Your task to perform on an android device: change the clock display to digital Image 0: 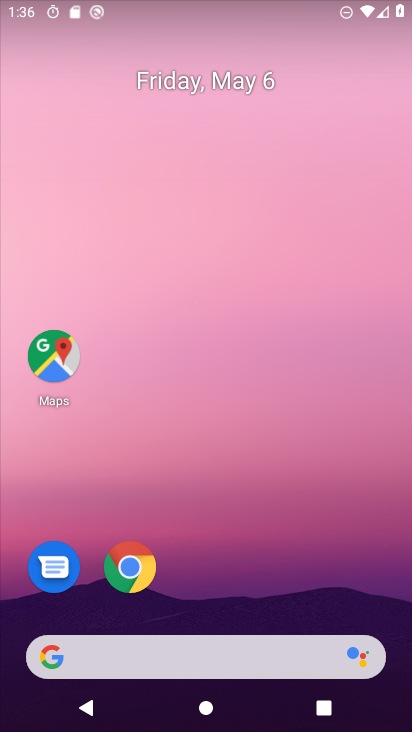
Step 0: drag from (347, 609) to (342, 2)
Your task to perform on an android device: change the clock display to digital Image 1: 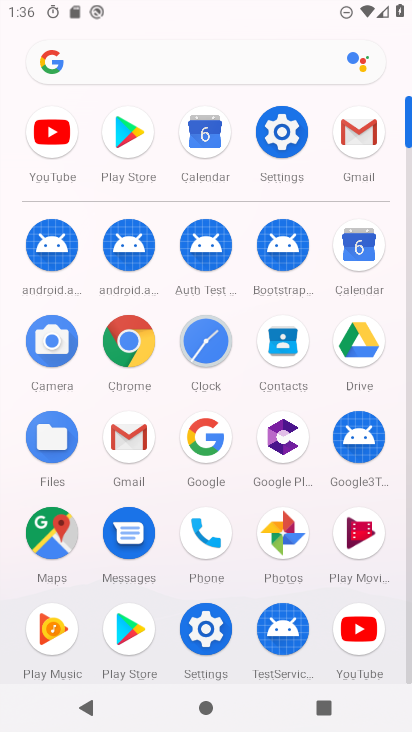
Step 1: click (203, 344)
Your task to perform on an android device: change the clock display to digital Image 2: 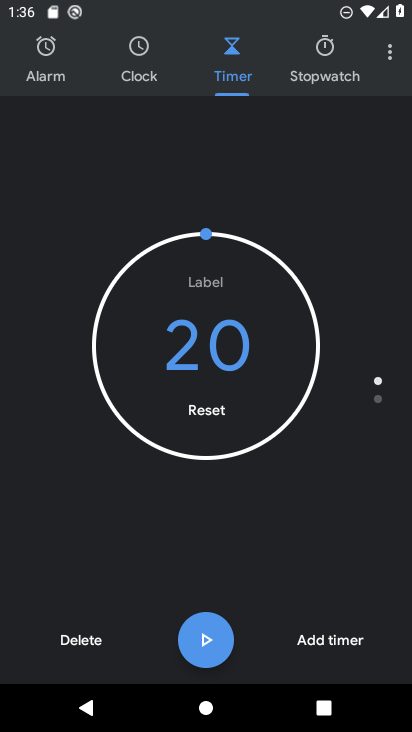
Step 2: click (387, 55)
Your task to perform on an android device: change the clock display to digital Image 3: 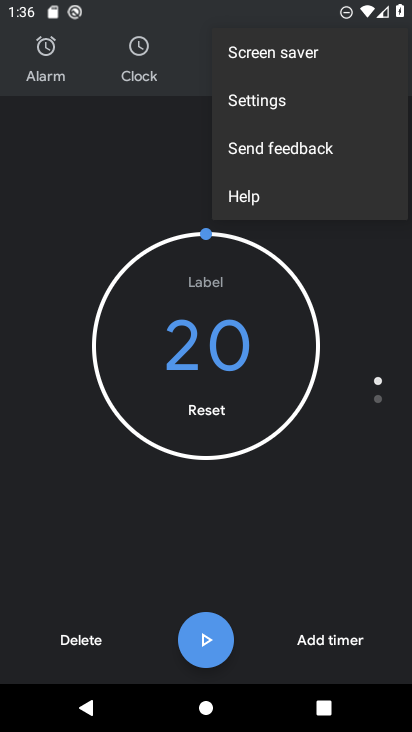
Step 3: click (281, 110)
Your task to perform on an android device: change the clock display to digital Image 4: 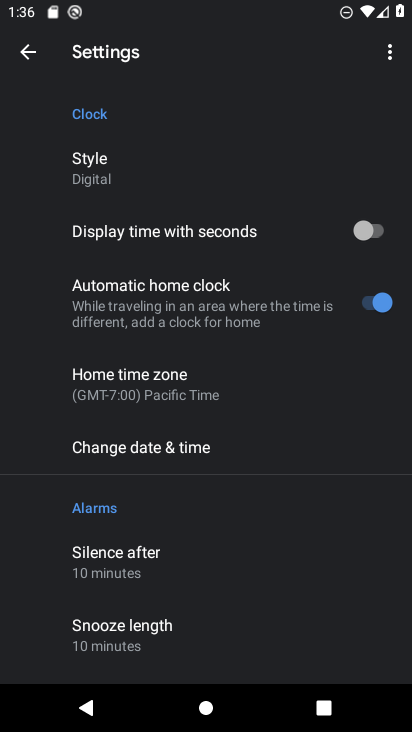
Step 4: task complete